Your task to perform on an android device: see creations saved in the google photos Image 0: 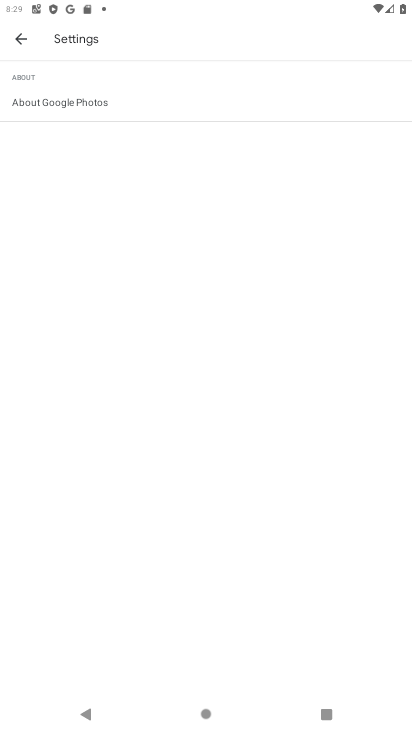
Step 0: press home button
Your task to perform on an android device: see creations saved in the google photos Image 1: 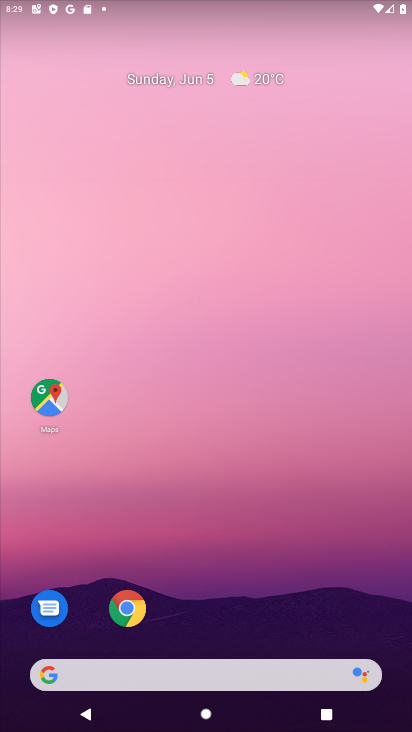
Step 1: drag from (52, 503) to (219, 141)
Your task to perform on an android device: see creations saved in the google photos Image 2: 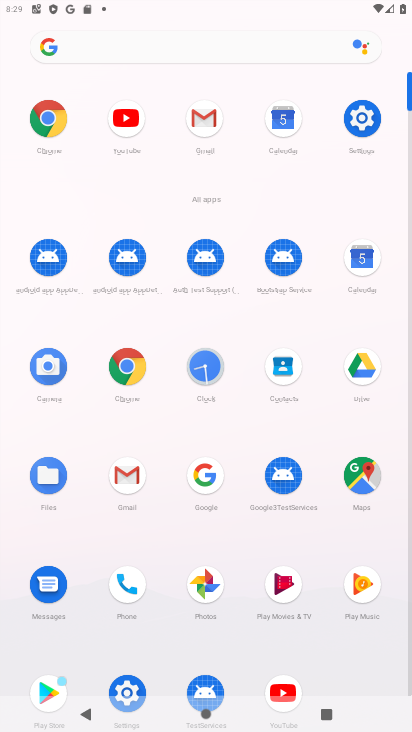
Step 2: click (212, 583)
Your task to perform on an android device: see creations saved in the google photos Image 3: 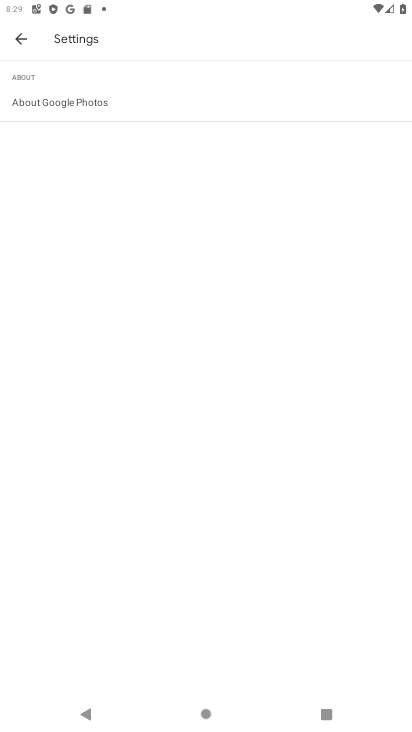
Step 3: click (24, 38)
Your task to perform on an android device: see creations saved in the google photos Image 4: 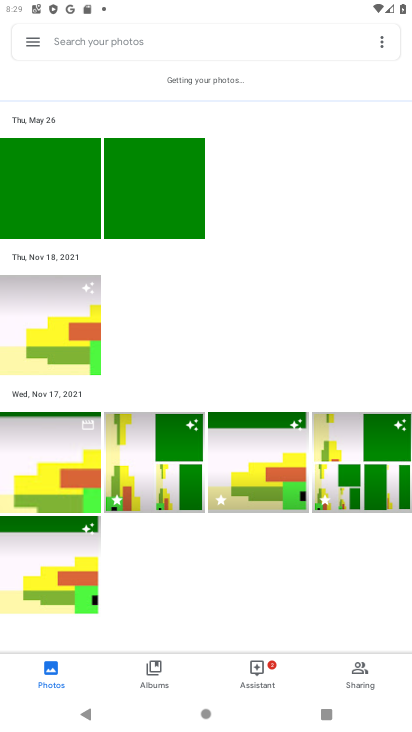
Step 4: click (190, 32)
Your task to perform on an android device: see creations saved in the google photos Image 5: 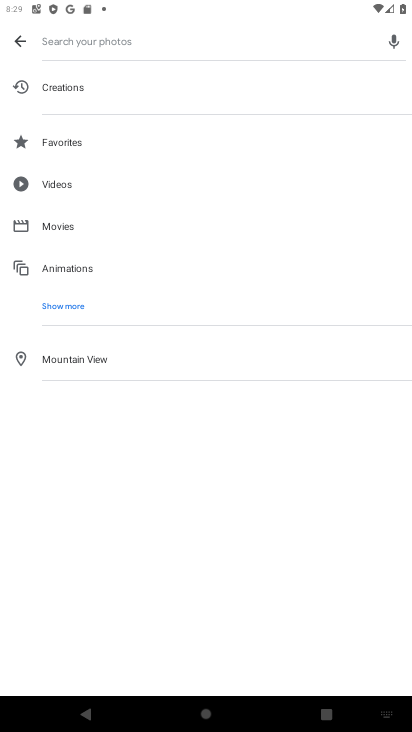
Step 5: click (87, 302)
Your task to perform on an android device: see creations saved in the google photos Image 6: 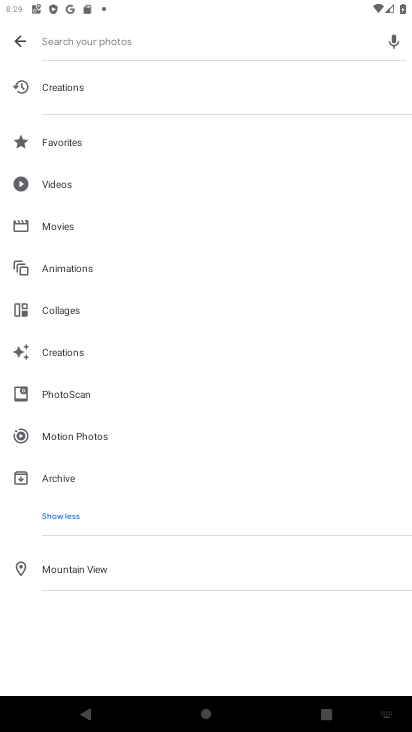
Step 6: click (74, 358)
Your task to perform on an android device: see creations saved in the google photos Image 7: 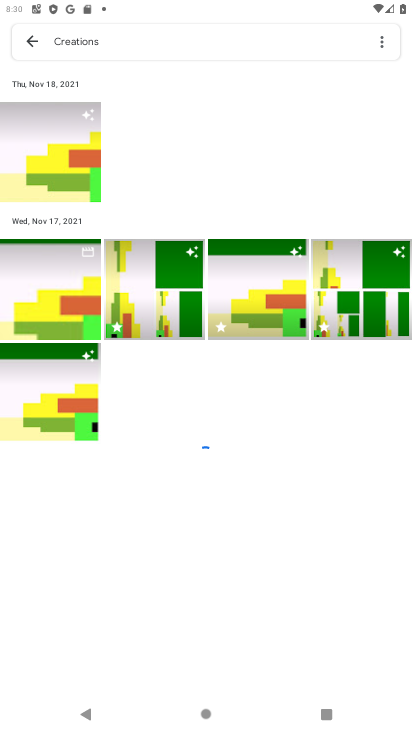
Step 7: task complete